Your task to perform on an android device: manage bookmarks in the chrome app Image 0: 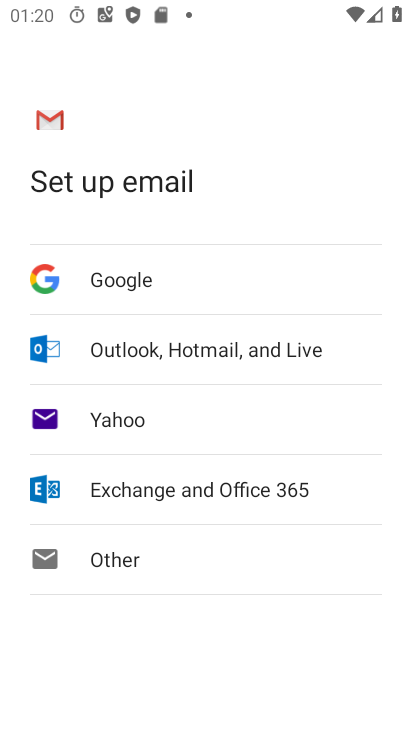
Step 0: press home button
Your task to perform on an android device: manage bookmarks in the chrome app Image 1: 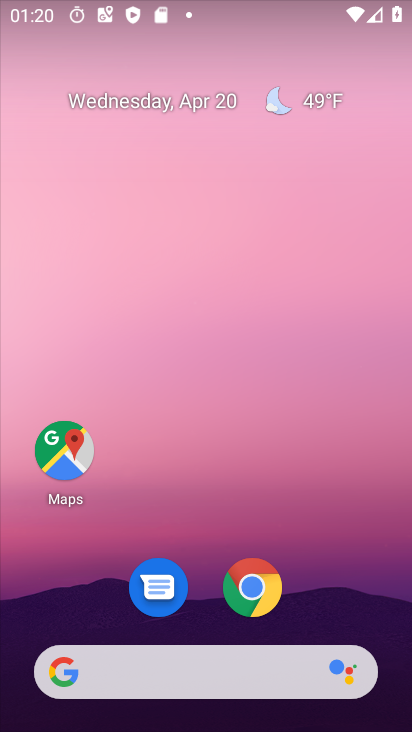
Step 1: click (256, 593)
Your task to perform on an android device: manage bookmarks in the chrome app Image 2: 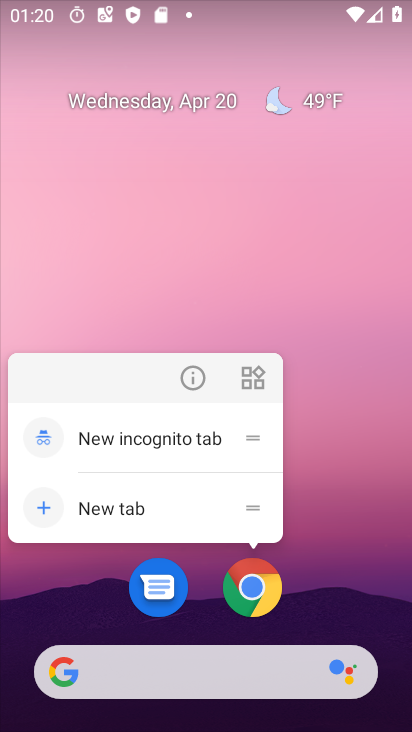
Step 2: click (259, 596)
Your task to perform on an android device: manage bookmarks in the chrome app Image 3: 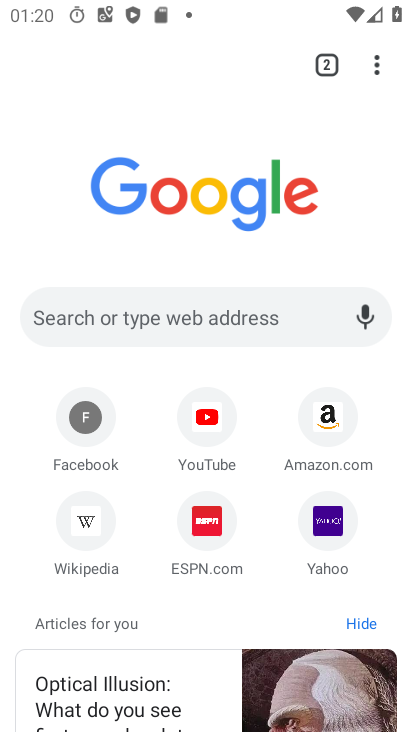
Step 3: click (375, 65)
Your task to perform on an android device: manage bookmarks in the chrome app Image 4: 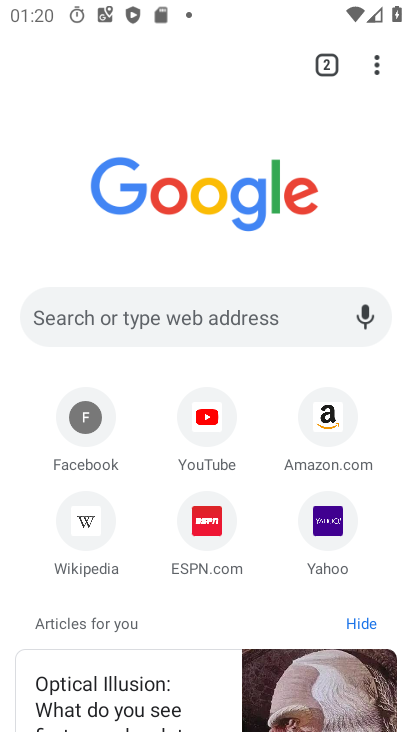
Step 4: click (377, 69)
Your task to perform on an android device: manage bookmarks in the chrome app Image 5: 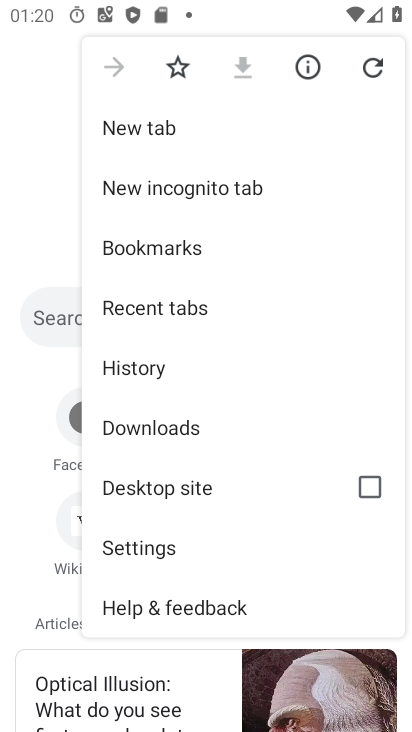
Step 5: click (148, 247)
Your task to perform on an android device: manage bookmarks in the chrome app Image 6: 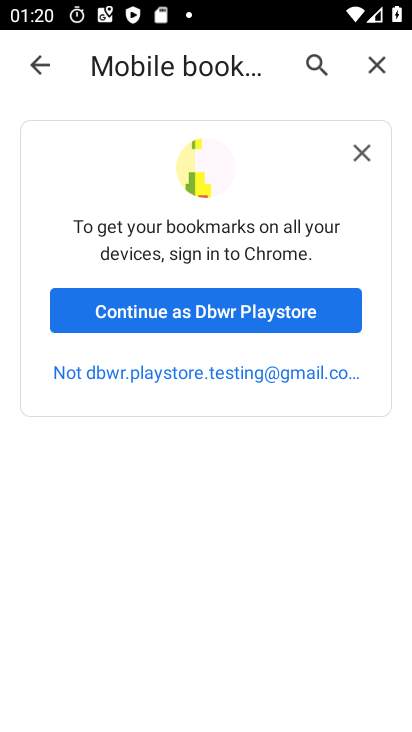
Step 6: click (176, 313)
Your task to perform on an android device: manage bookmarks in the chrome app Image 7: 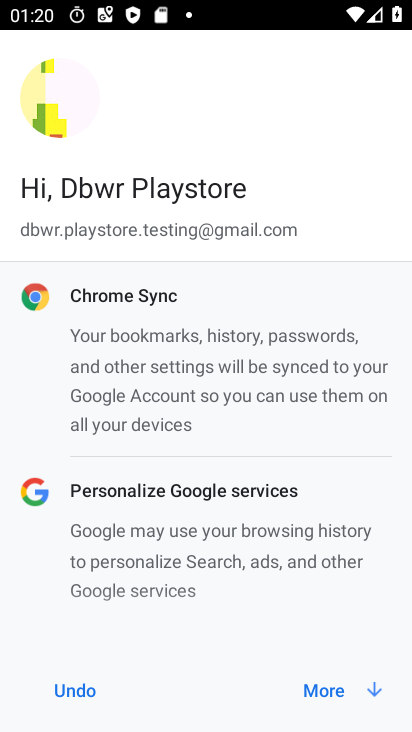
Step 7: click (307, 697)
Your task to perform on an android device: manage bookmarks in the chrome app Image 8: 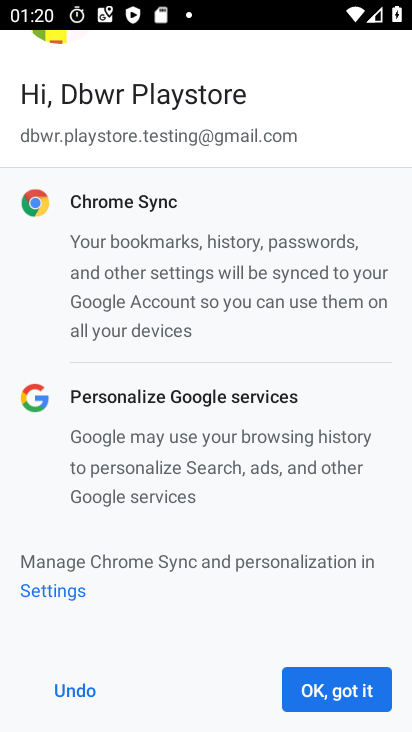
Step 8: click (307, 697)
Your task to perform on an android device: manage bookmarks in the chrome app Image 9: 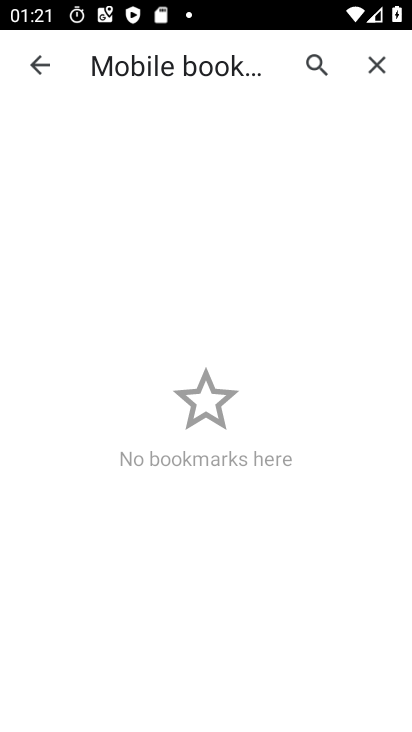
Step 9: drag from (193, 186) to (250, 473)
Your task to perform on an android device: manage bookmarks in the chrome app Image 10: 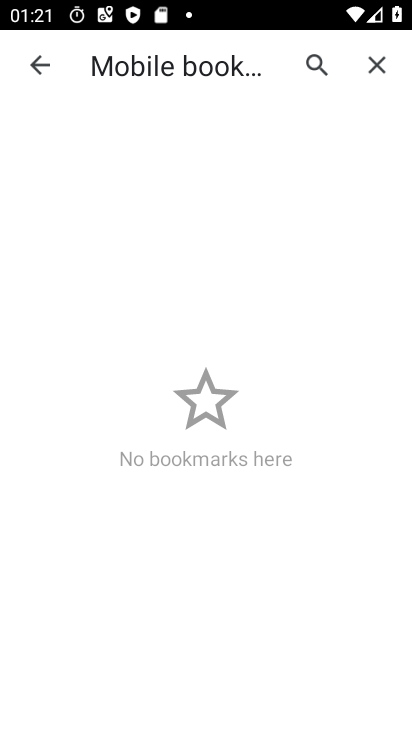
Step 10: click (237, 660)
Your task to perform on an android device: manage bookmarks in the chrome app Image 11: 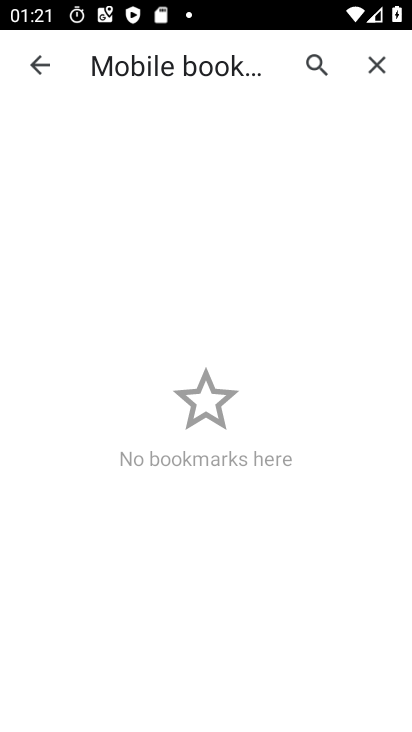
Step 11: task complete